Your task to perform on an android device: Open calendar and show me the second week of next month Image 0: 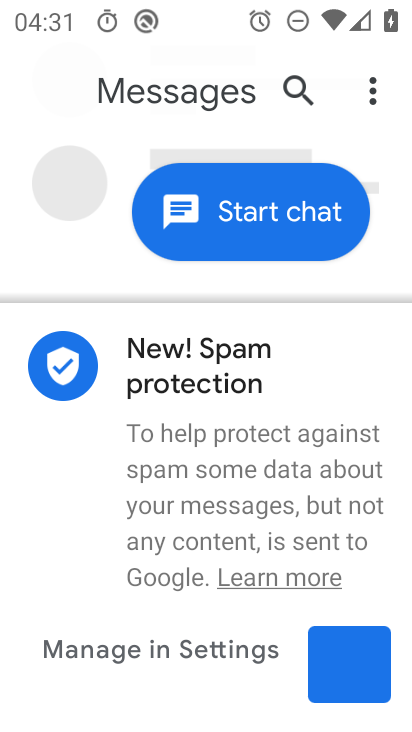
Step 0: press home button
Your task to perform on an android device: Open calendar and show me the second week of next month Image 1: 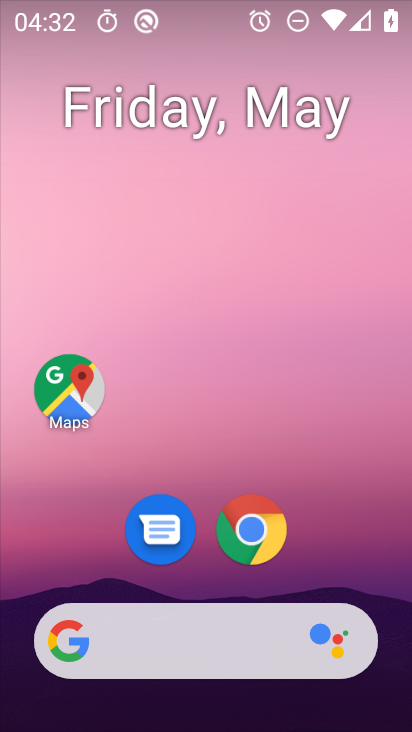
Step 1: click (407, 199)
Your task to perform on an android device: Open calendar and show me the second week of next month Image 2: 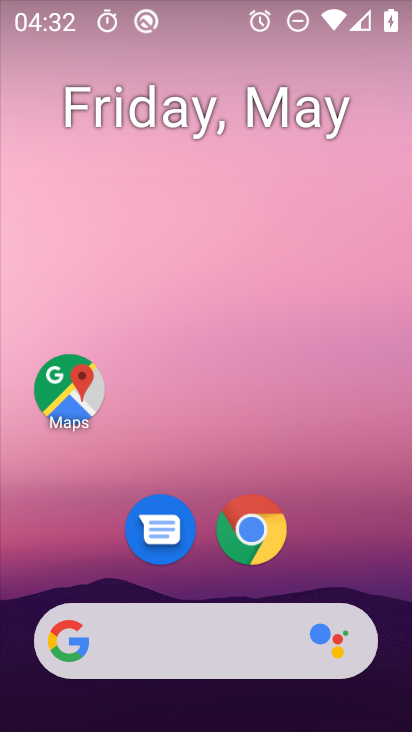
Step 2: drag from (396, 583) to (389, 382)
Your task to perform on an android device: Open calendar and show me the second week of next month Image 3: 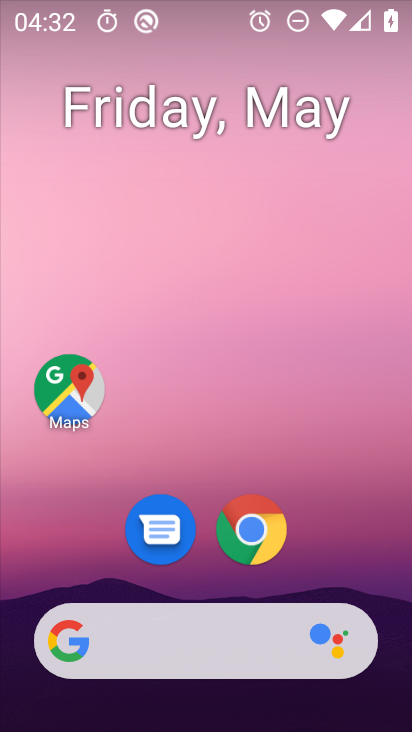
Step 3: drag from (392, 606) to (388, 196)
Your task to perform on an android device: Open calendar and show me the second week of next month Image 4: 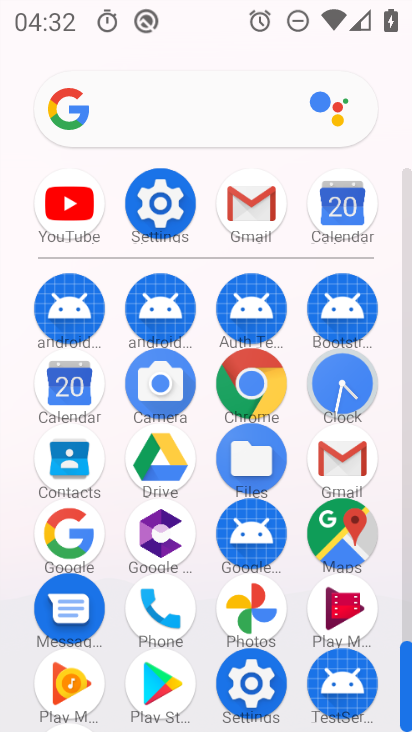
Step 4: click (78, 391)
Your task to perform on an android device: Open calendar and show me the second week of next month Image 5: 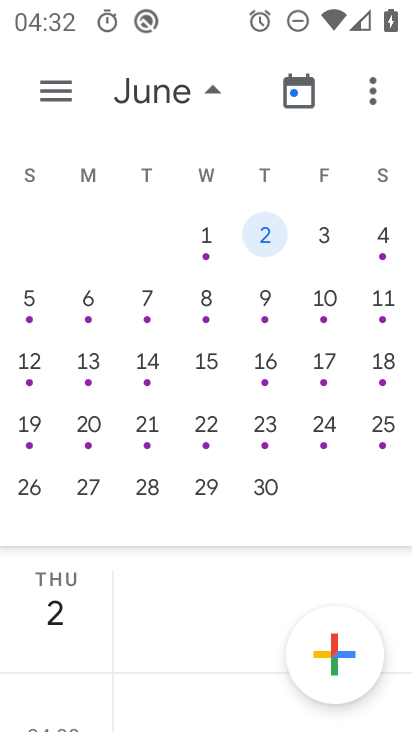
Step 5: click (268, 292)
Your task to perform on an android device: Open calendar and show me the second week of next month Image 6: 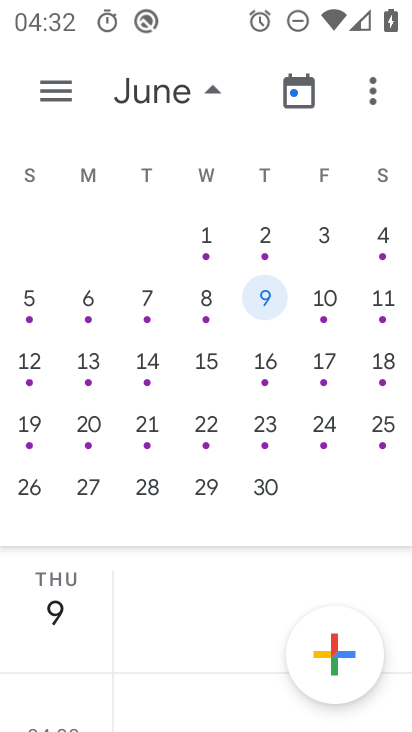
Step 6: task complete